Your task to perform on an android device: Open Google Image 0: 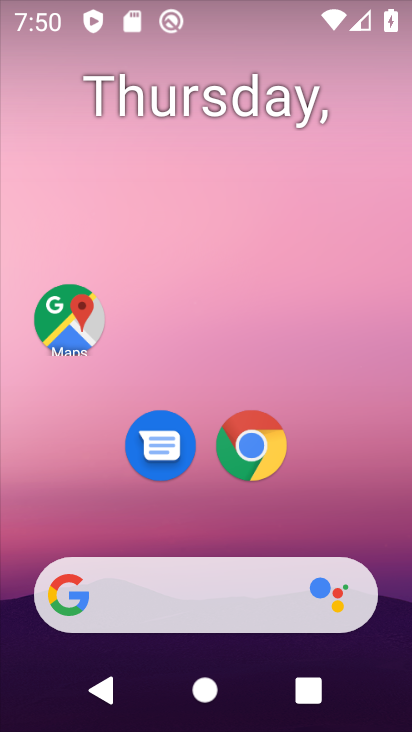
Step 0: click (254, 131)
Your task to perform on an android device: Open Google Image 1: 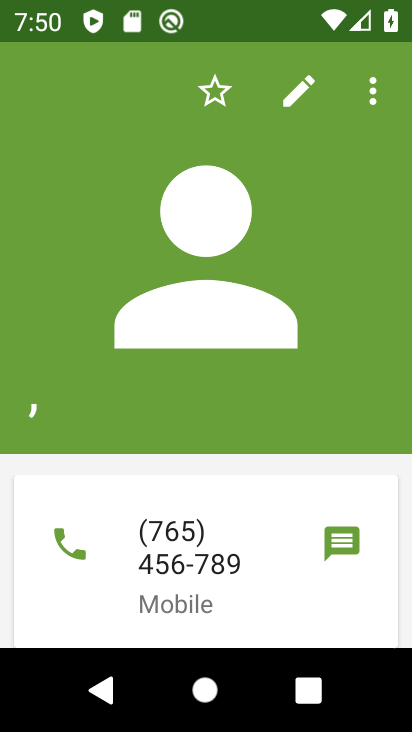
Step 1: press home button
Your task to perform on an android device: Open Google Image 2: 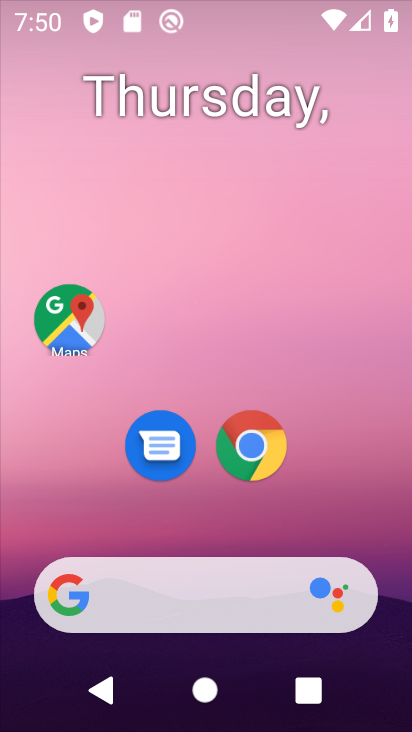
Step 2: drag from (202, 544) to (171, 106)
Your task to perform on an android device: Open Google Image 3: 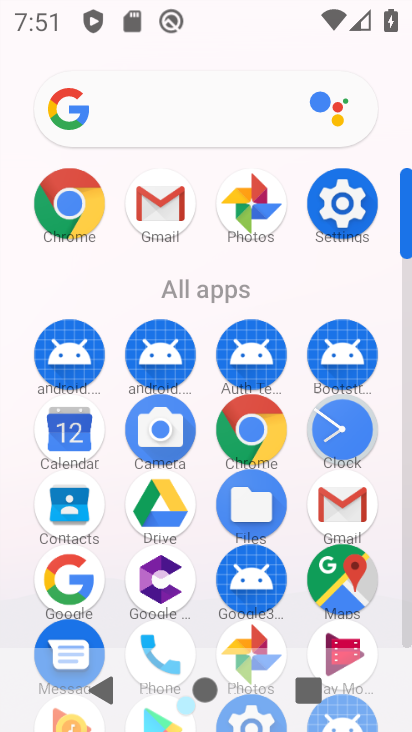
Step 3: drag from (204, 601) to (272, 193)
Your task to perform on an android device: Open Google Image 4: 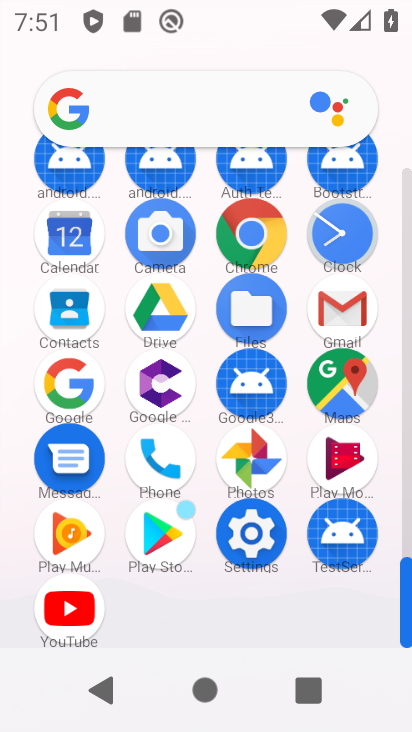
Step 4: click (67, 380)
Your task to perform on an android device: Open Google Image 5: 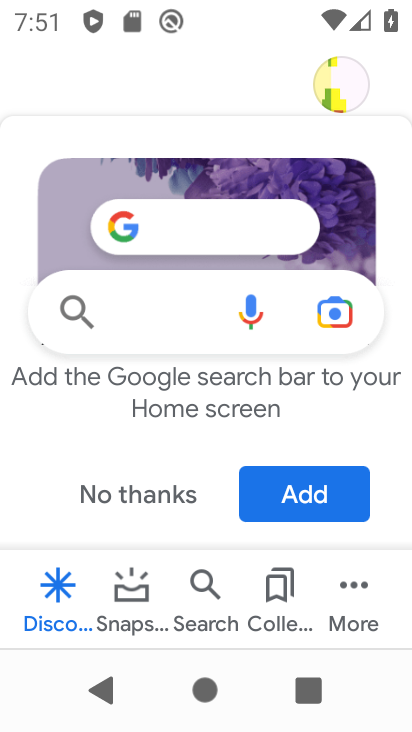
Step 5: task complete